Your task to perform on an android device: Clear the shopping cart on newegg. Search for "razer blade" on newegg, select the first entry, add it to the cart, then select checkout. Image 0: 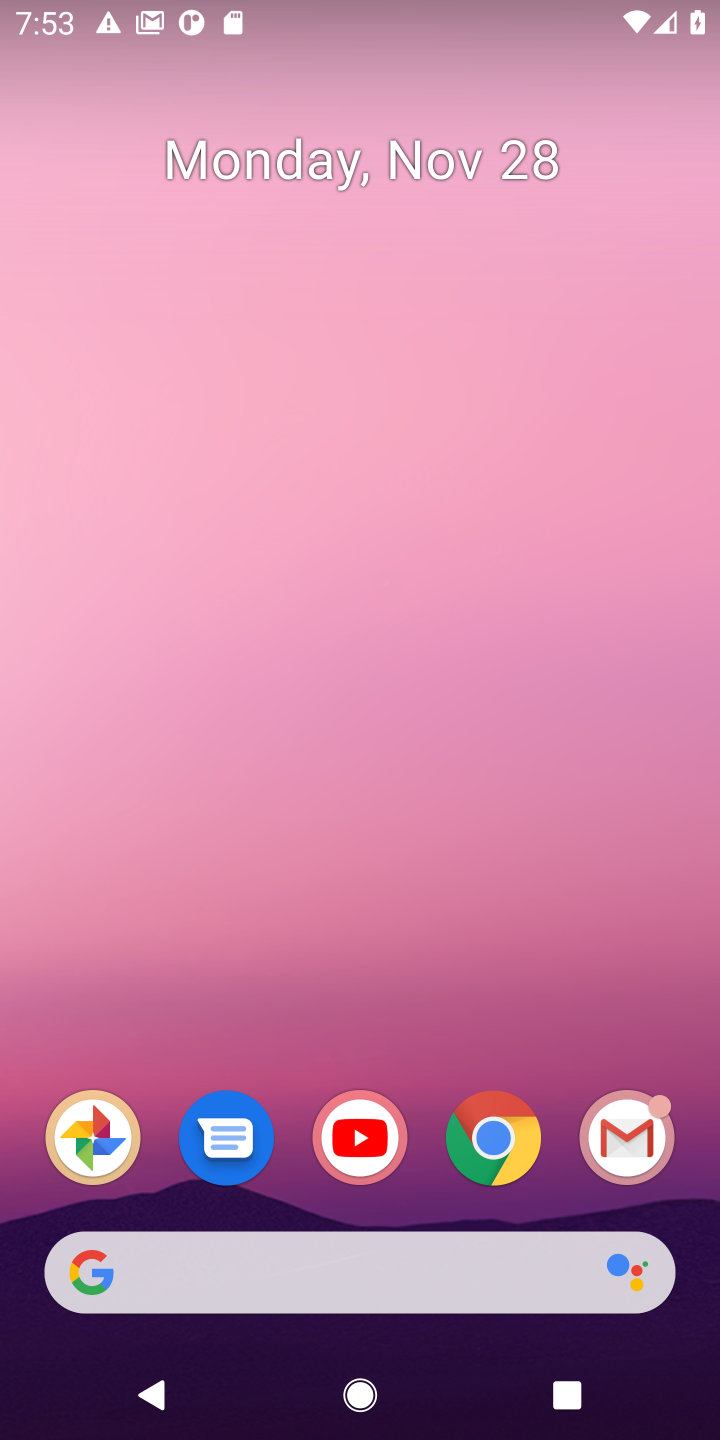
Step 0: click (504, 1142)
Your task to perform on an android device: Clear the shopping cart on newegg. Search for "razer blade" on newegg, select the first entry, add it to the cart, then select checkout. Image 1: 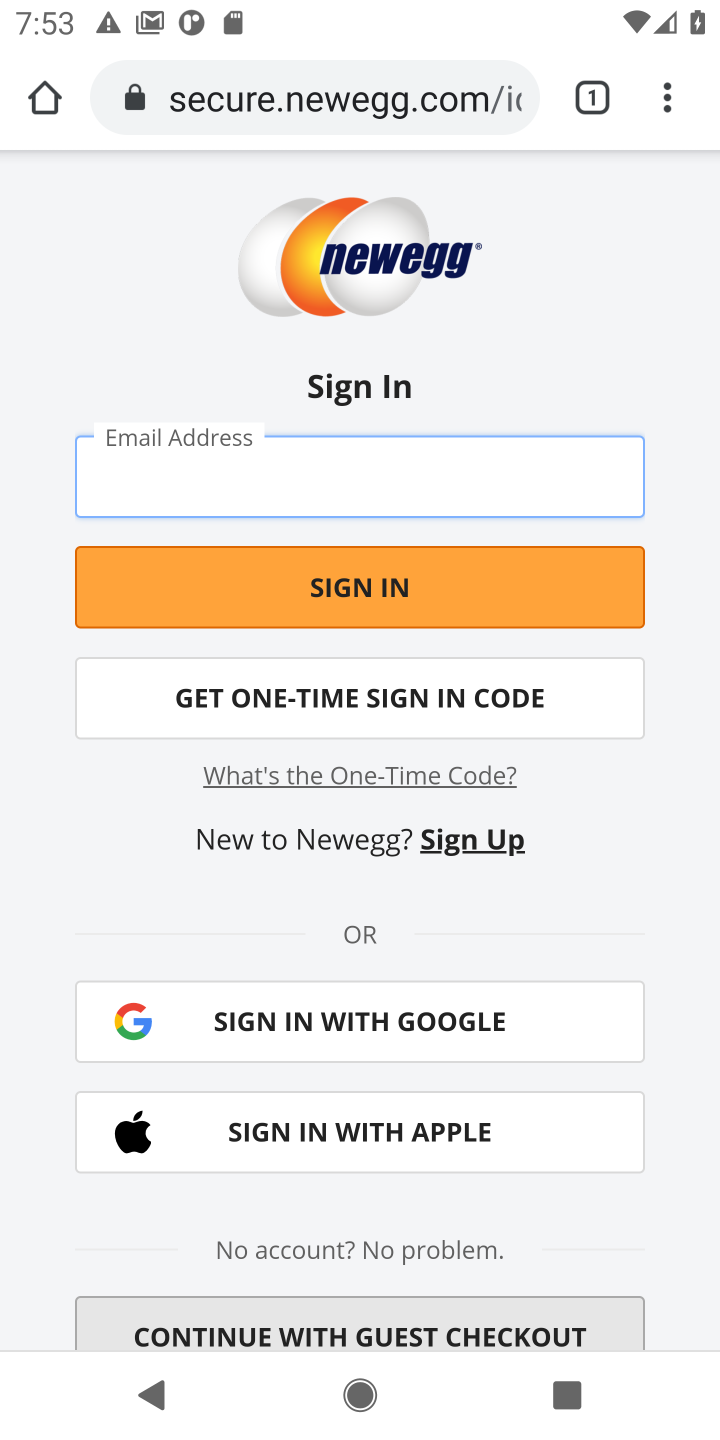
Step 1: press back button
Your task to perform on an android device: Clear the shopping cart on newegg. Search for "razer blade" on newegg, select the first entry, add it to the cart, then select checkout. Image 2: 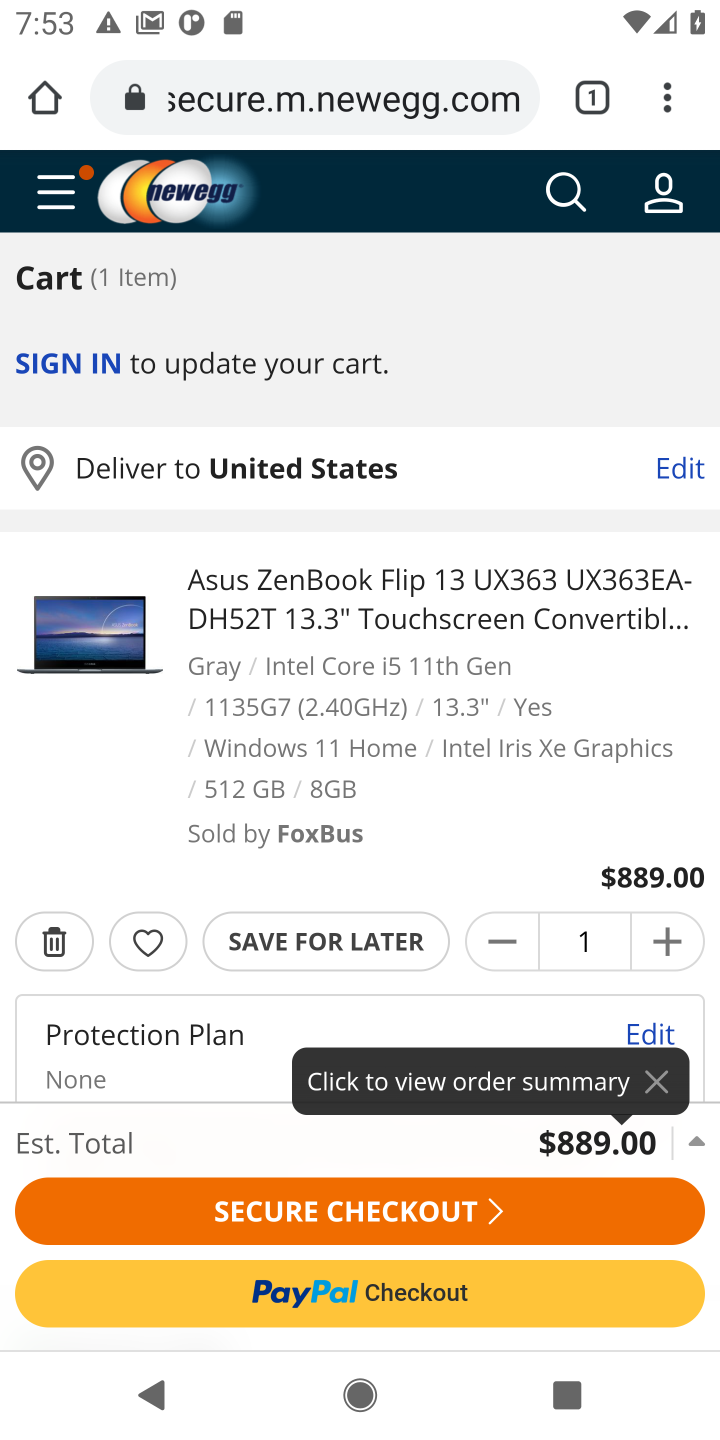
Step 2: click (54, 943)
Your task to perform on an android device: Clear the shopping cart on newegg. Search for "razer blade" on newegg, select the first entry, add it to the cart, then select checkout. Image 3: 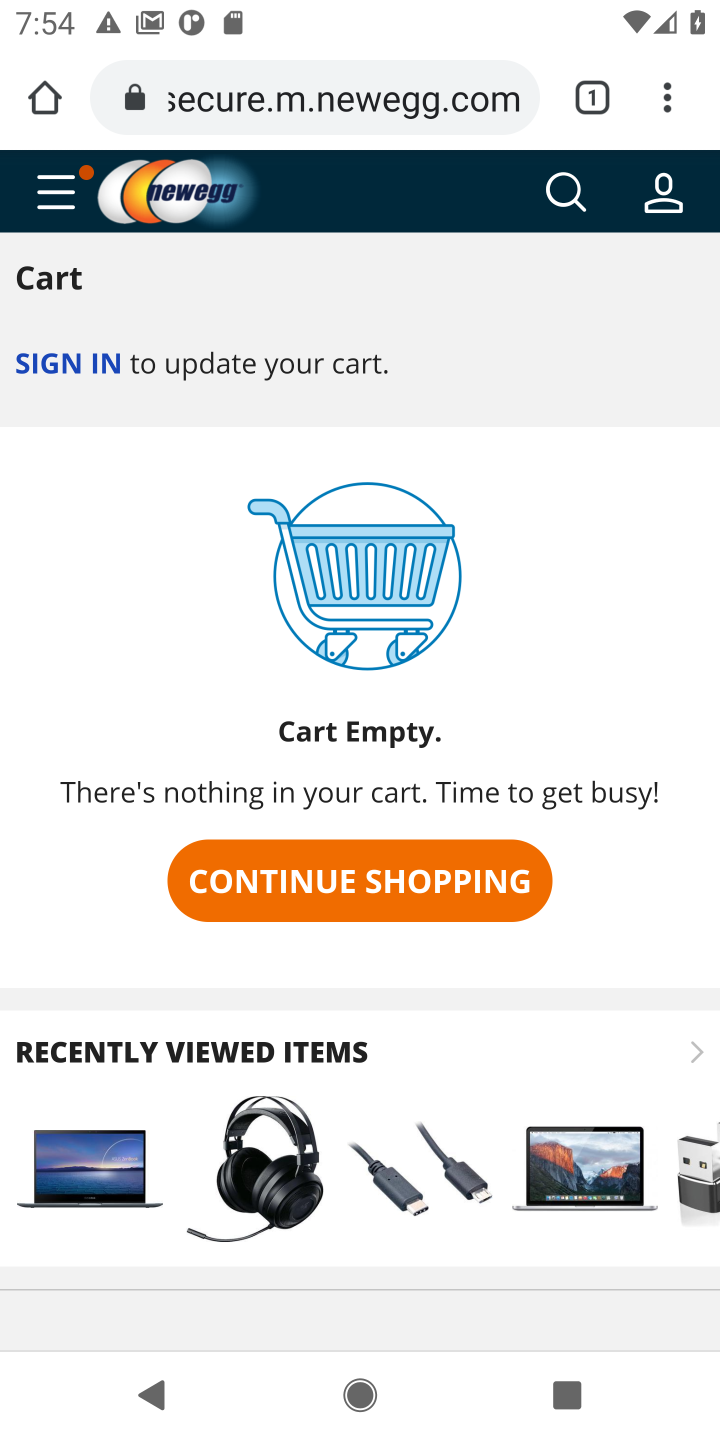
Step 3: click (562, 193)
Your task to perform on an android device: Clear the shopping cart on newegg. Search for "razer blade" on newegg, select the first entry, add it to the cart, then select checkout. Image 4: 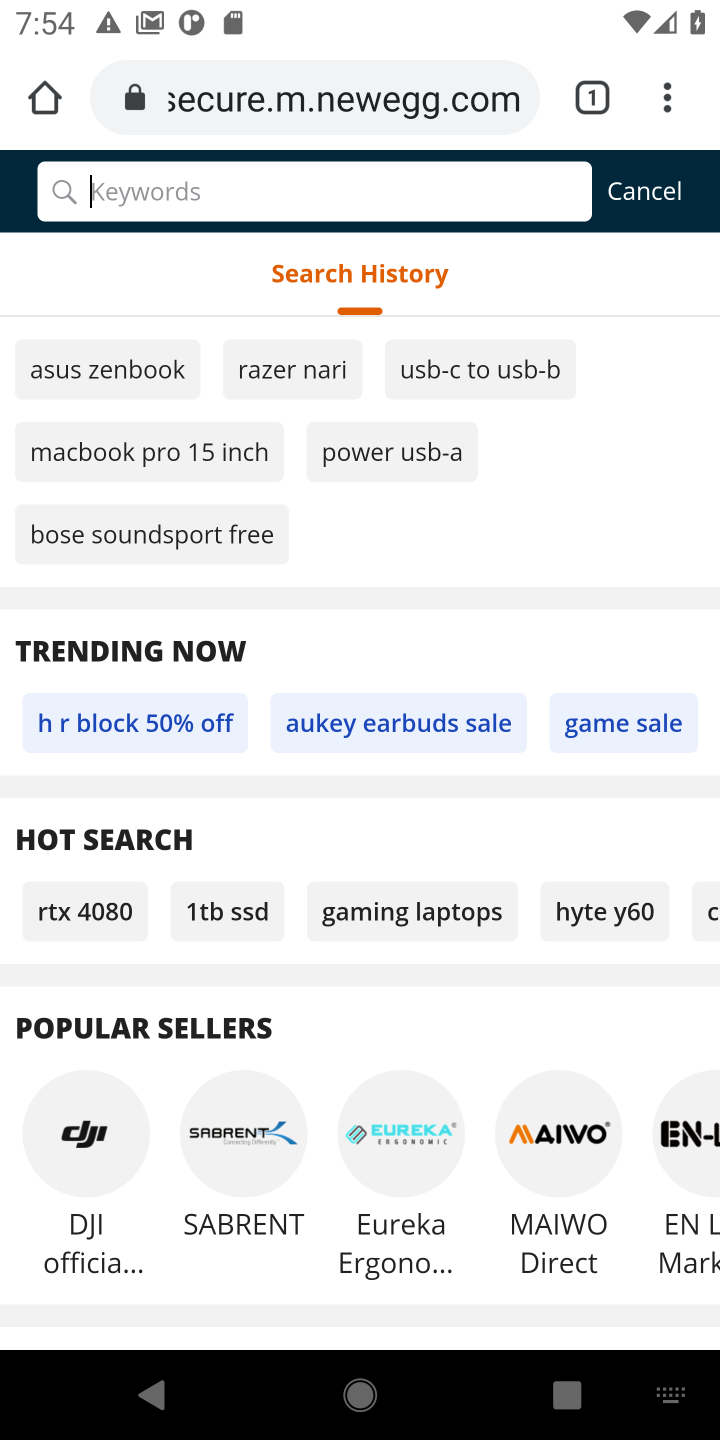
Step 4: type "razer blade"
Your task to perform on an android device: Clear the shopping cart on newegg. Search for "razer blade" on newegg, select the first entry, add it to the cart, then select checkout. Image 5: 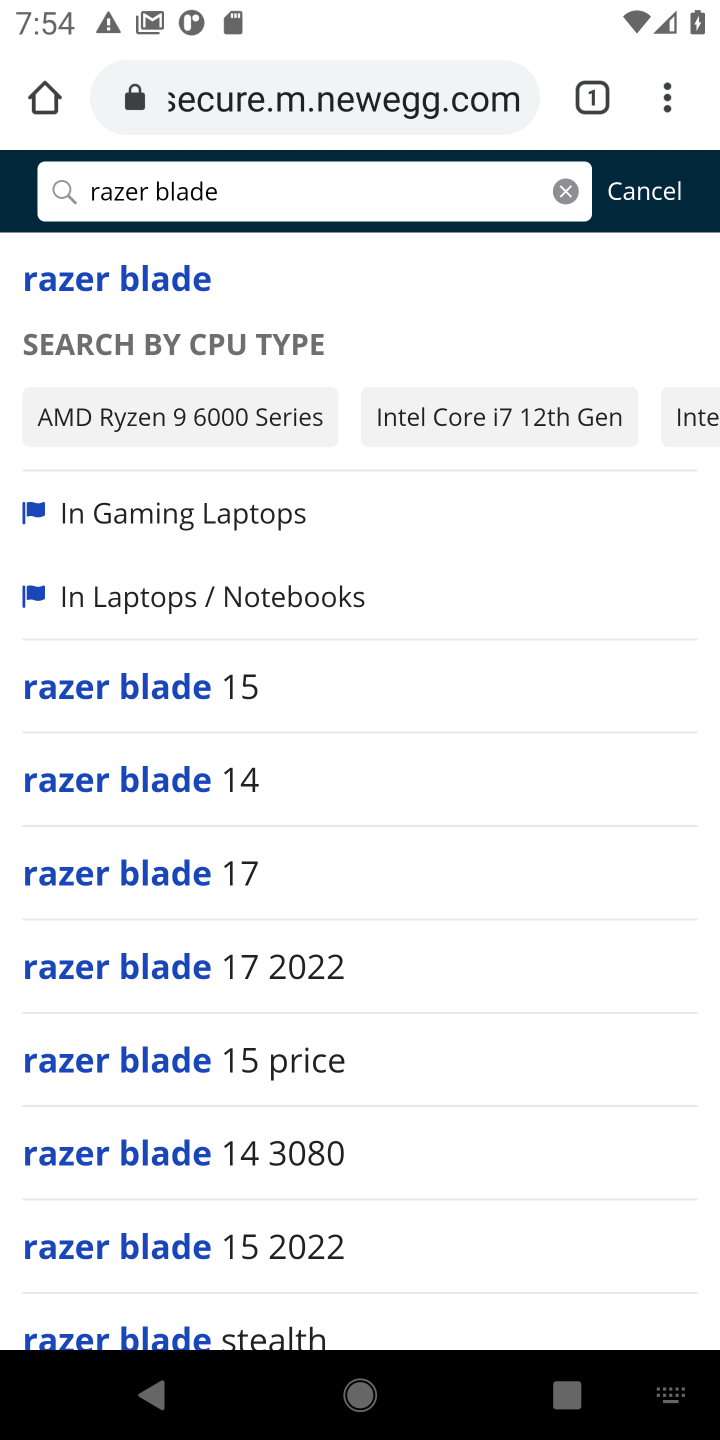
Step 5: click (145, 277)
Your task to perform on an android device: Clear the shopping cart on newegg. Search for "razer blade" on newegg, select the first entry, add it to the cart, then select checkout. Image 6: 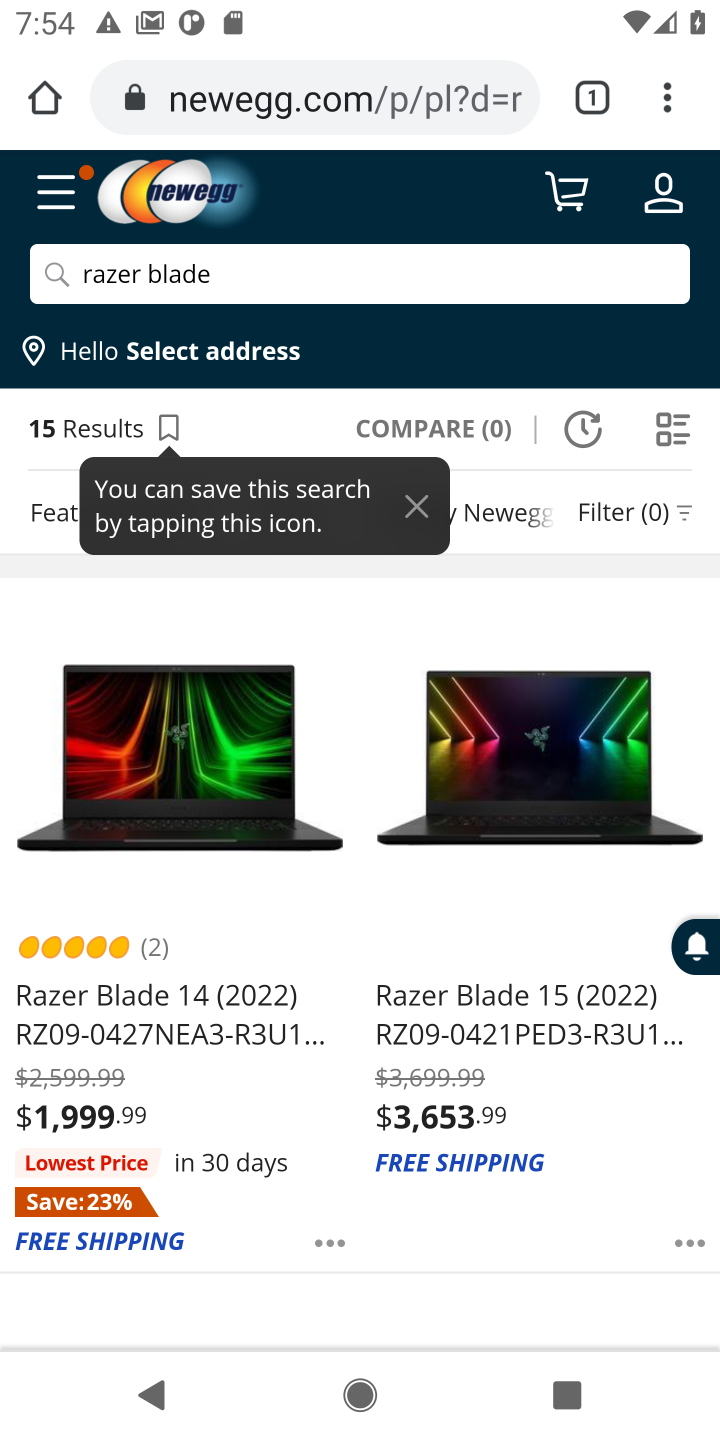
Step 6: click (89, 1031)
Your task to perform on an android device: Clear the shopping cart on newegg. Search for "razer blade" on newegg, select the first entry, add it to the cart, then select checkout. Image 7: 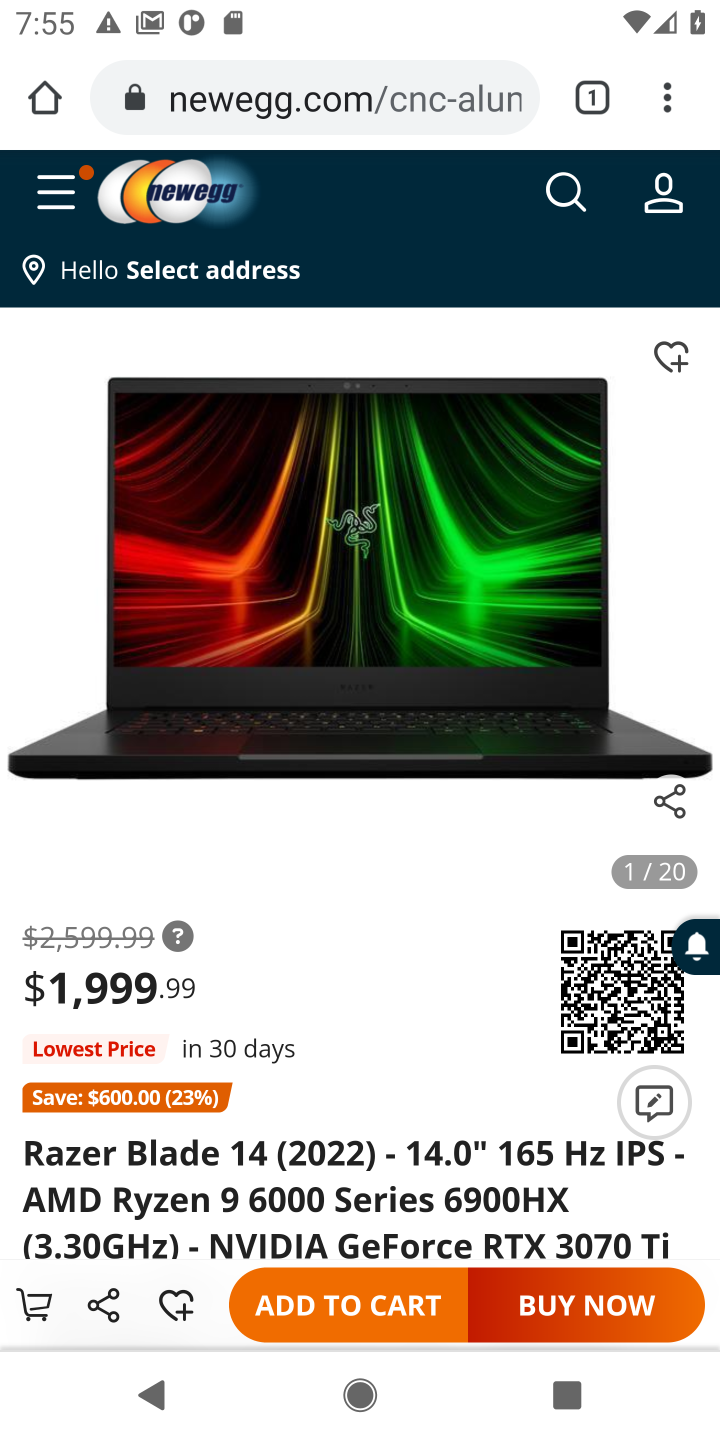
Step 7: click (353, 1314)
Your task to perform on an android device: Clear the shopping cart on newegg. Search for "razer blade" on newegg, select the first entry, add it to the cart, then select checkout. Image 8: 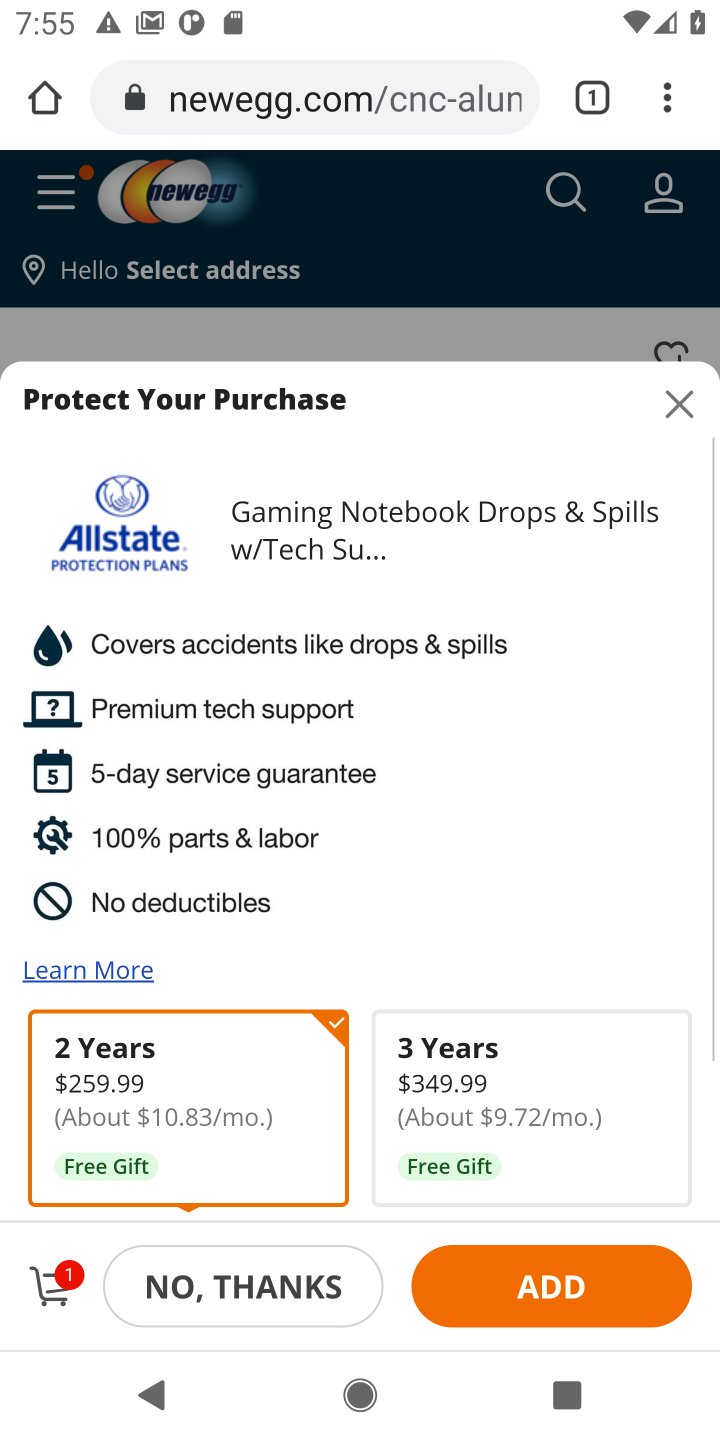
Step 8: click (48, 1291)
Your task to perform on an android device: Clear the shopping cart on newegg. Search for "razer blade" on newegg, select the first entry, add it to the cart, then select checkout. Image 9: 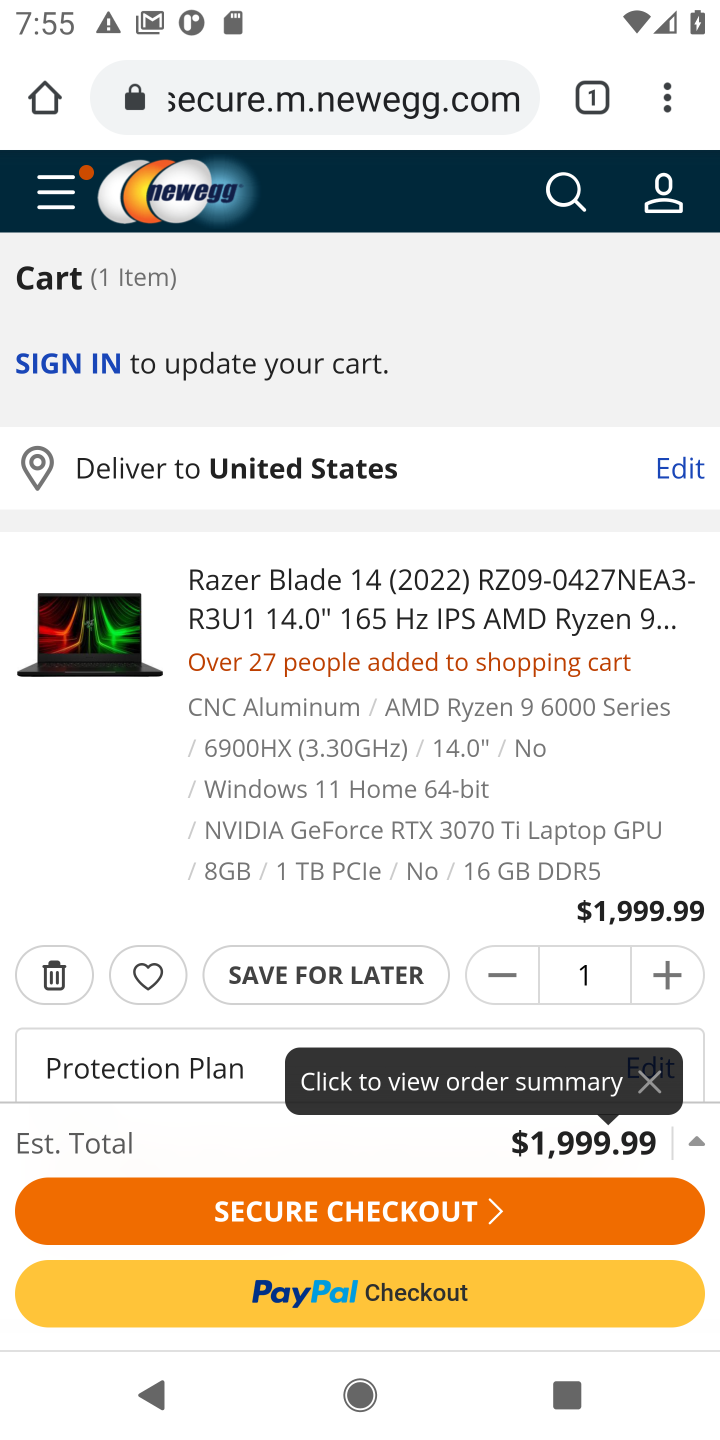
Step 9: click (397, 1209)
Your task to perform on an android device: Clear the shopping cart on newegg. Search for "razer blade" on newegg, select the first entry, add it to the cart, then select checkout. Image 10: 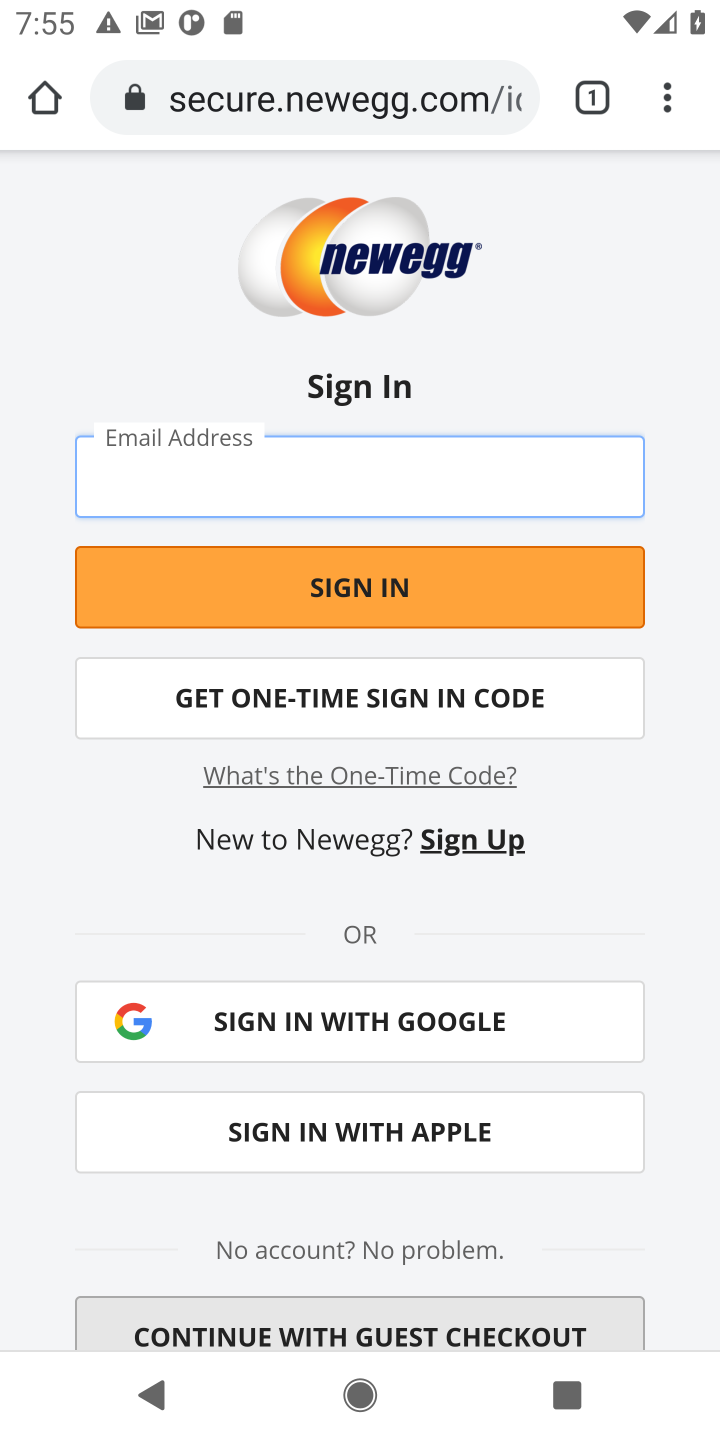
Step 10: task complete